Your task to perform on an android device: Go to Reddit.com Image 0: 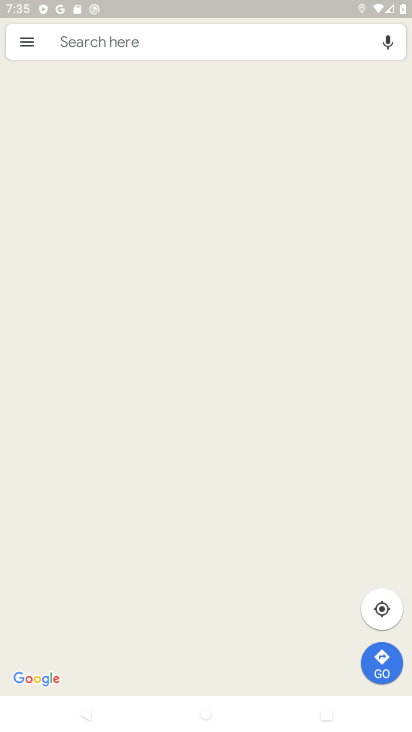
Step 0: press home button
Your task to perform on an android device: Go to Reddit.com Image 1: 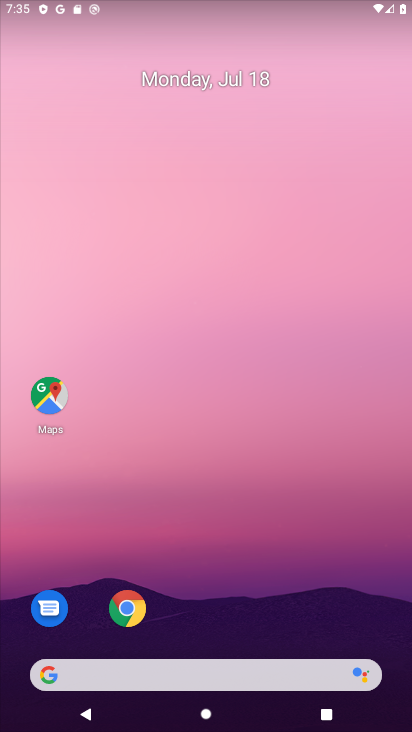
Step 1: drag from (204, 627) to (188, 148)
Your task to perform on an android device: Go to Reddit.com Image 2: 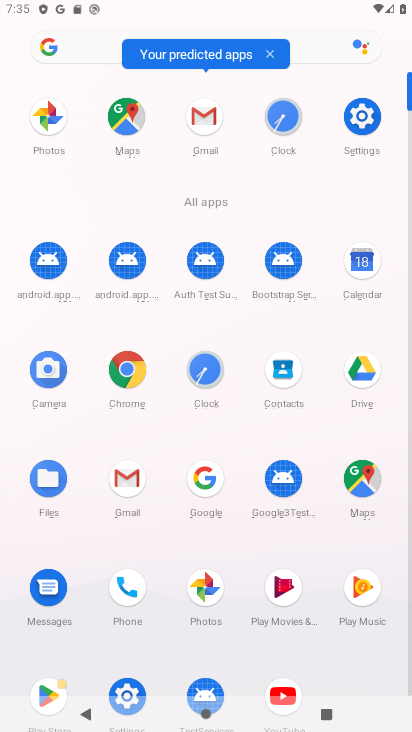
Step 2: click (204, 482)
Your task to perform on an android device: Go to Reddit.com Image 3: 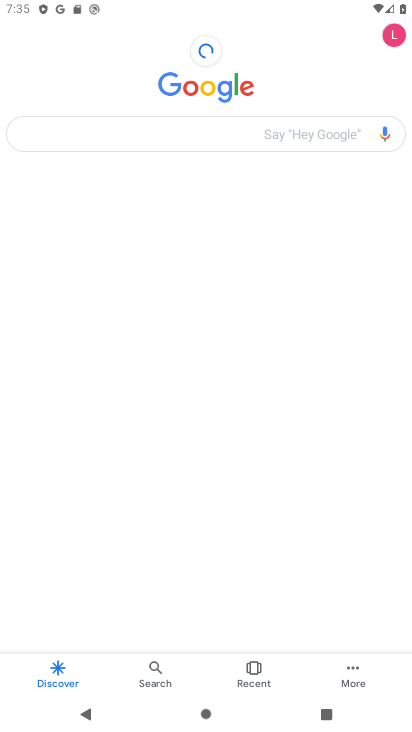
Step 3: click (181, 136)
Your task to perform on an android device: Go to Reddit.com Image 4: 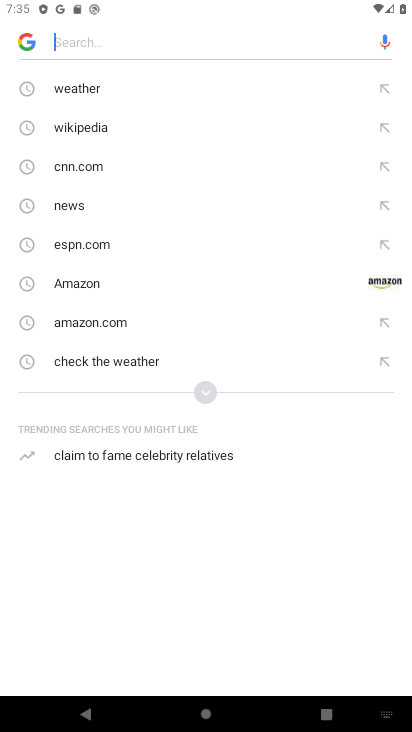
Step 4: click (202, 390)
Your task to perform on an android device: Go to Reddit.com Image 5: 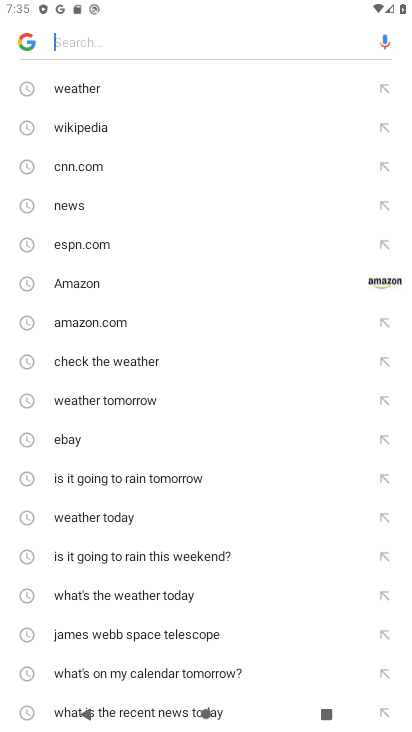
Step 5: drag from (151, 501) to (131, 203)
Your task to perform on an android device: Go to Reddit.com Image 6: 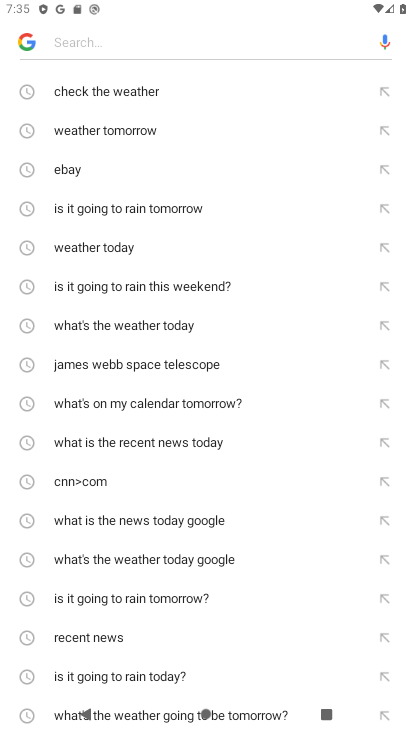
Step 6: drag from (159, 639) to (163, 166)
Your task to perform on an android device: Go to Reddit.com Image 7: 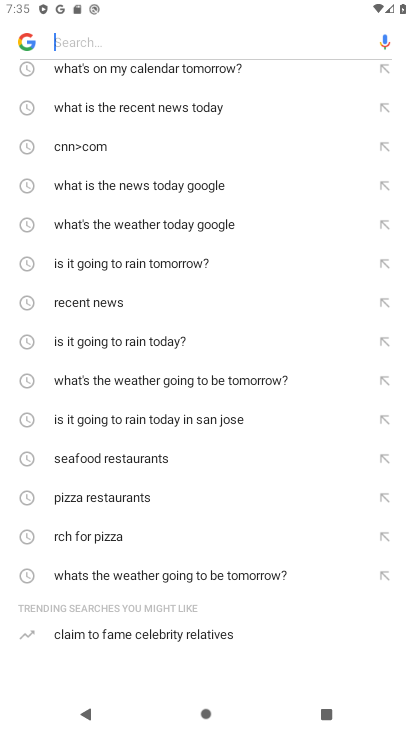
Step 7: type "reddit.com"
Your task to perform on an android device: Go to Reddit.com Image 8: 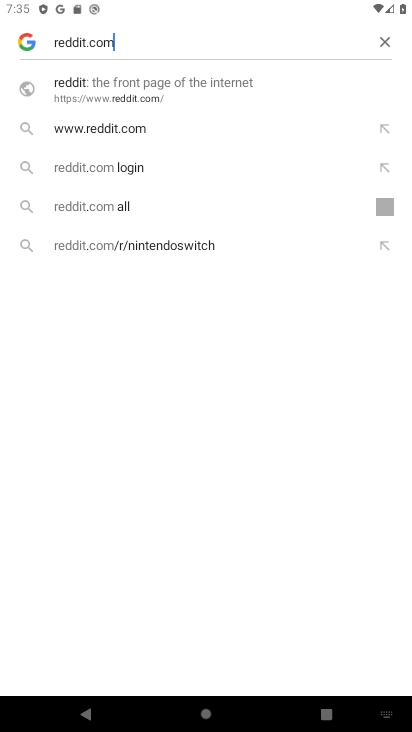
Step 8: click (148, 100)
Your task to perform on an android device: Go to Reddit.com Image 9: 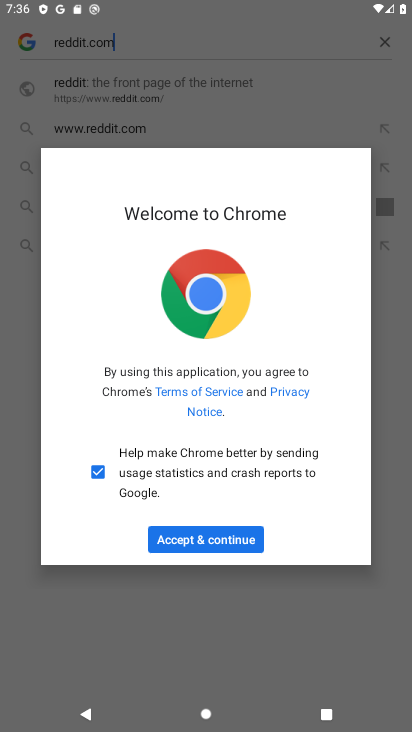
Step 9: click (193, 545)
Your task to perform on an android device: Go to Reddit.com Image 10: 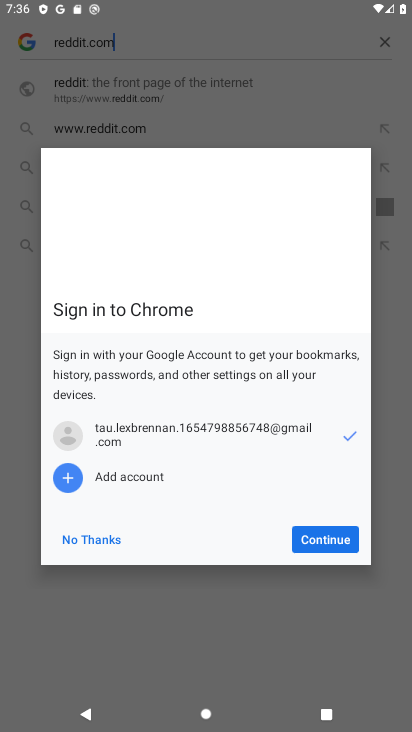
Step 10: click (330, 539)
Your task to perform on an android device: Go to Reddit.com Image 11: 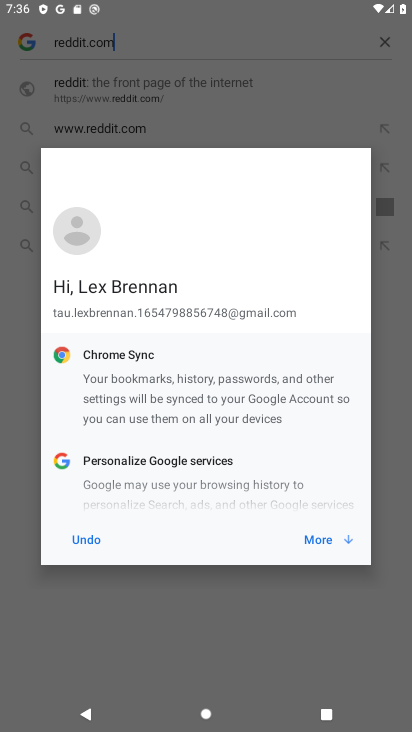
Step 11: click (330, 539)
Your task to perform on an android device: Go to Reddit.com Image 12: 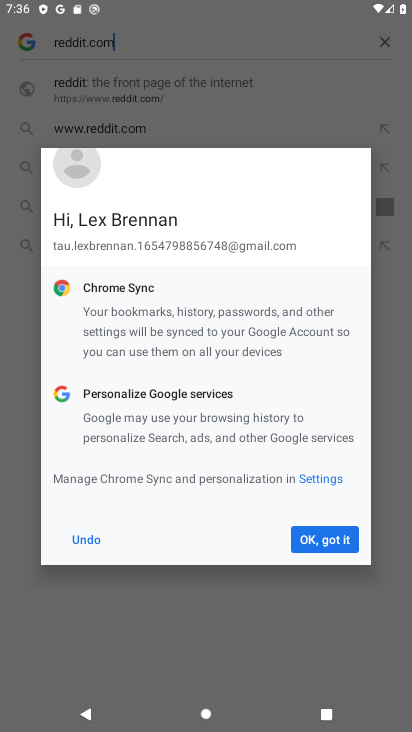
Step 12: click (330, 539)
Your task to perform on an android device: Go to Reddit.com Image 13: 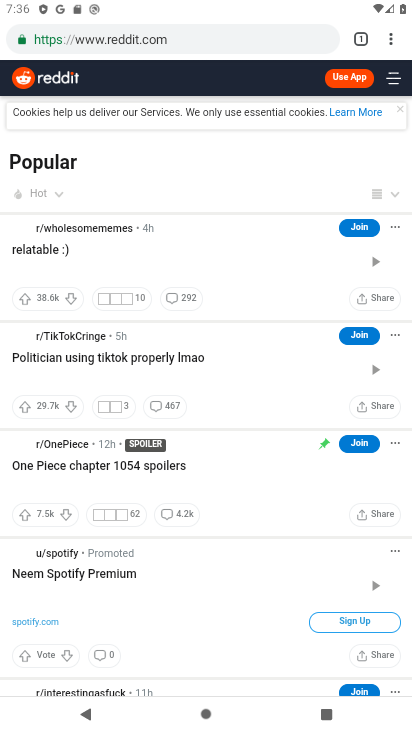
Step 13: task complete